Your task to perform on an android device: What's the price of the Galaxy phone on eBay? Image 0: 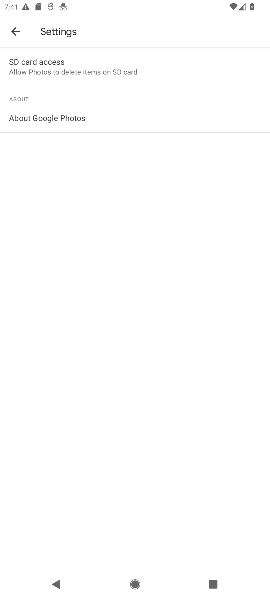
Step 0: press home button
Your task to perform on an android device: What's the price of the Galaxy phone on eBay? Image 1: 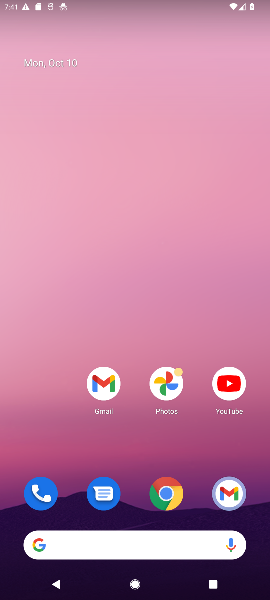
Step 1: drag from (136, 440) to (111, 294)
Your task to perform on an android device: What's the price of the Galaxy phone on eBay? Image 2: 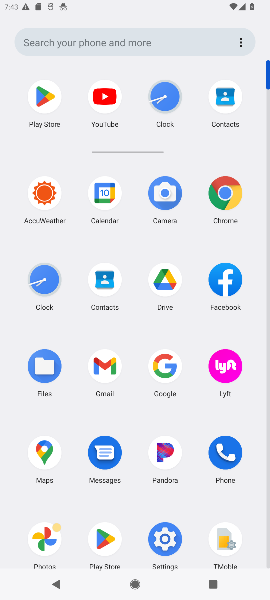
Step 2: click (159, 394)
Your task to perform on an android device: What's the price of the Galaxy phone on eBay? Image 3: 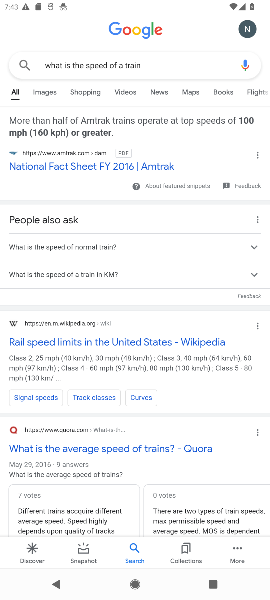
Step 3: click (163, 55)
Your task to perform on an android device: What's the price of the Galaxy phone on eBay? Image 4: 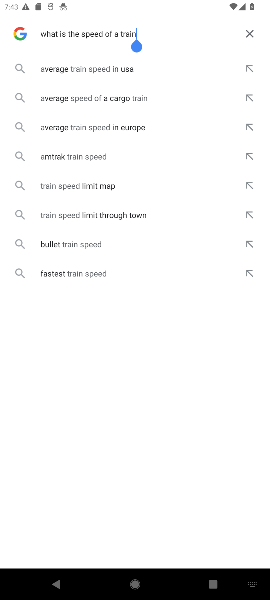
Step 4: click (246, 33)
Your task to perform on an android device: What's the price of the Galaxy phone on eBay? Image 5: 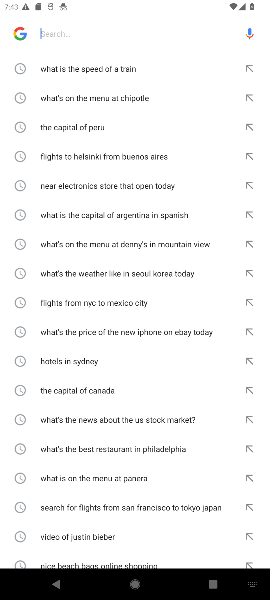
Step 5: type "What's the price of the Galaxy phone on eBay?"
Your task to perform on an android device: What's the price of the Galaxy phone on eBay? Image 6: 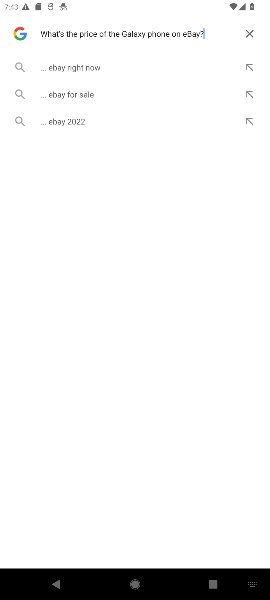
Step 6: click (90, 72)
Your task to perform on an android device: What's the price of the Galaxy phone on eBay? Image 7: 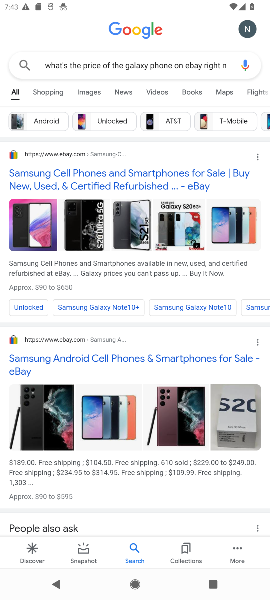
Step 7: task complete